Your task to perform on an android device: Go to Android settings Image 0: 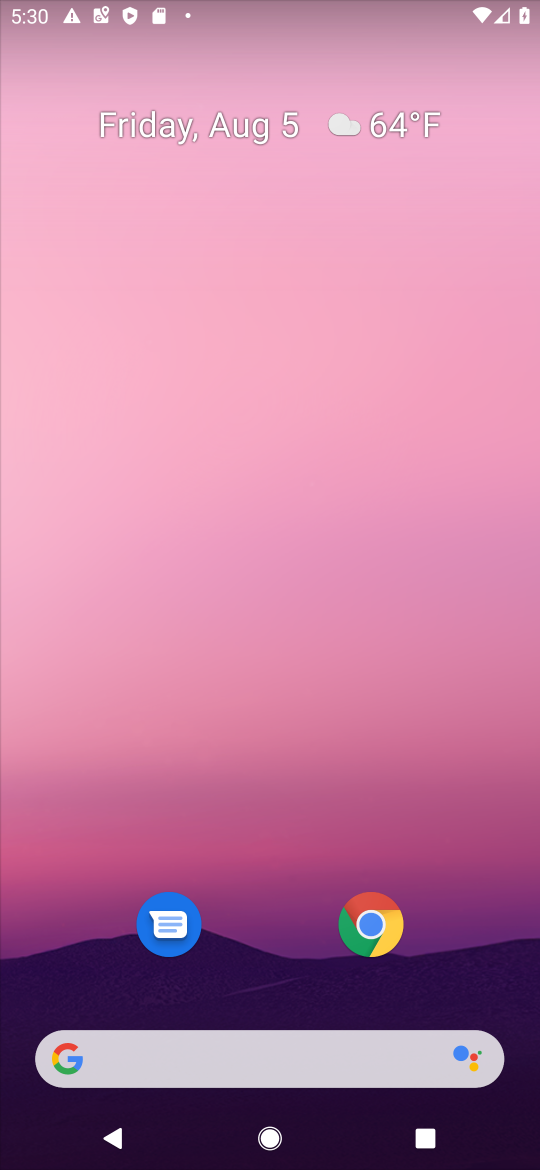
Step 0: drag from (200, 1125) to (335, 411)
Your task to perform on an android device: Go to Android settings Image 1: 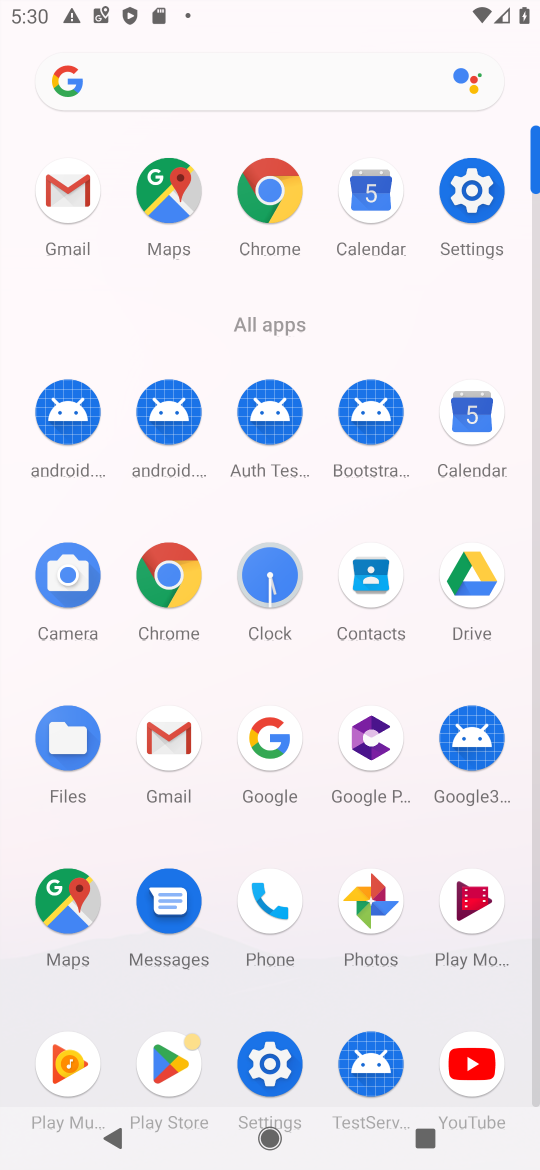
Step 1: click (469, 212)
Your task to perform on an android device: Go to Android settings Image 2: 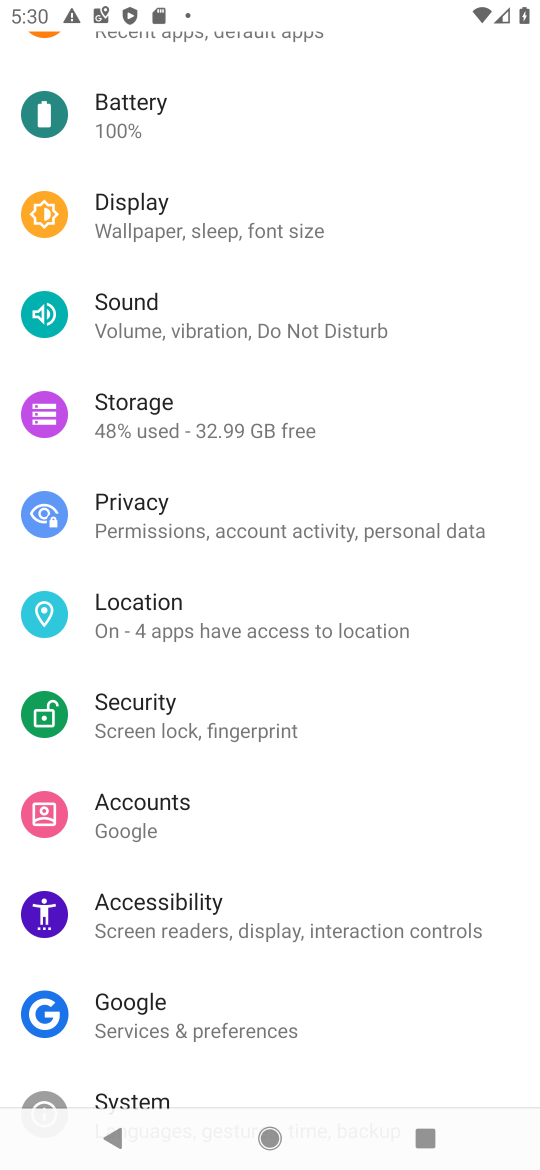
Step 2: drag from (242, 1031) to (178, 374)
Your task to perform on an android device: Go to Android settings Image 3: 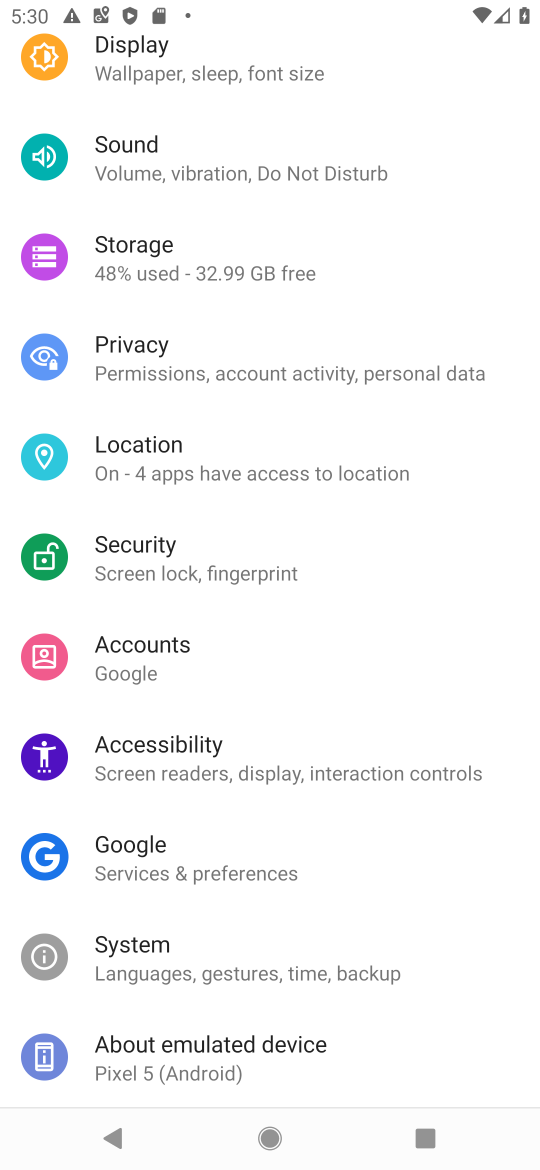
Step 3: click (328, 1052)
Your task to perform on an android device: Go to Android settings Image 4: 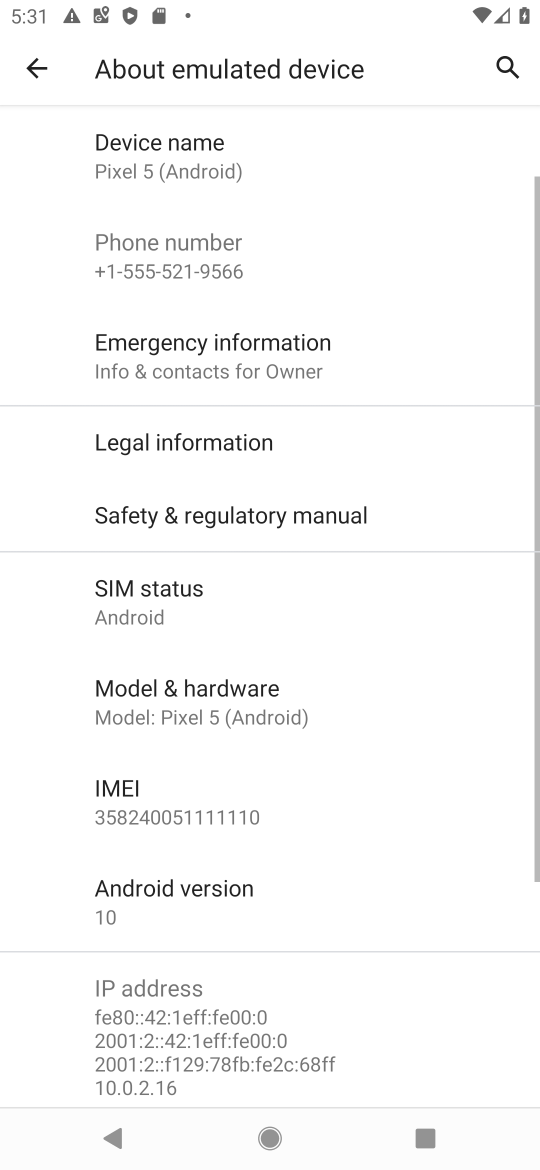
Step 4: task complete